Your task to perform on an android device: Open location settings Image 0: 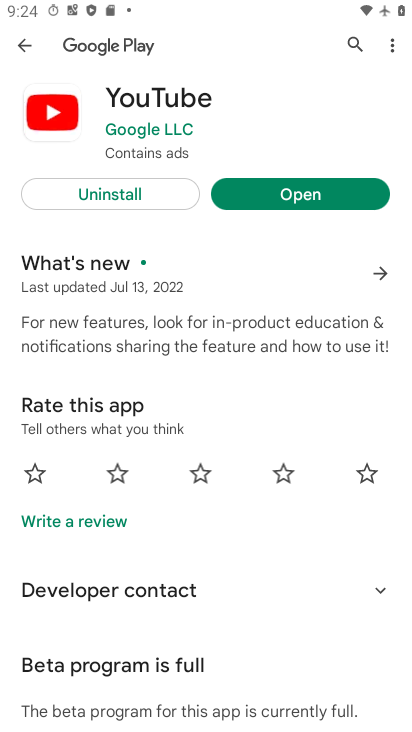
Step 0: press home button
Your task to perform on an android device: Open location settings Image 1: 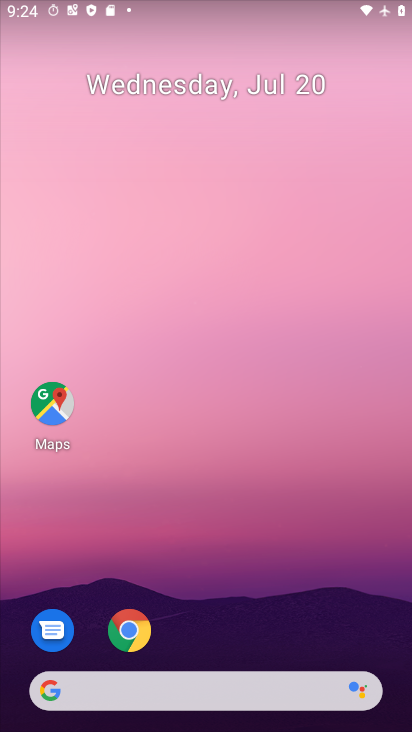
Step 1: drag from (244, 663) to (246, 215)
Your task to perform on an android device: Open location settings Image 2: 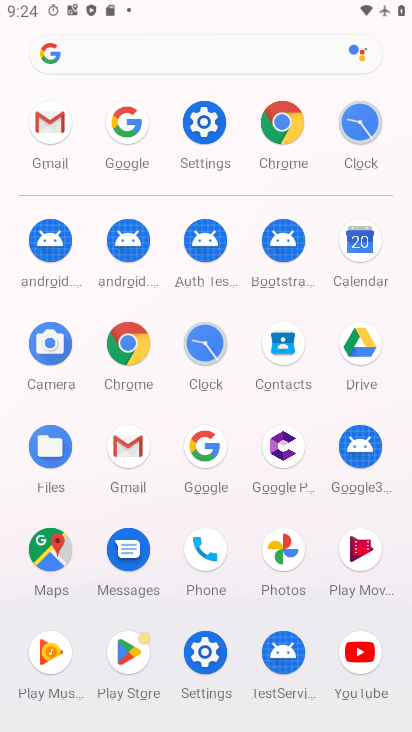
Step 2: click (203, 155)
Your task to perform on an android device: Open location settings Image 3: 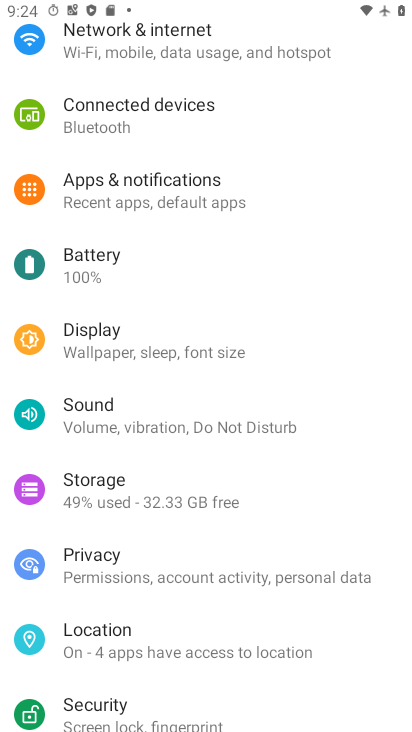
Step 3: click (156, 637)
Your task to perform on an android device: Open location settings Image 4: 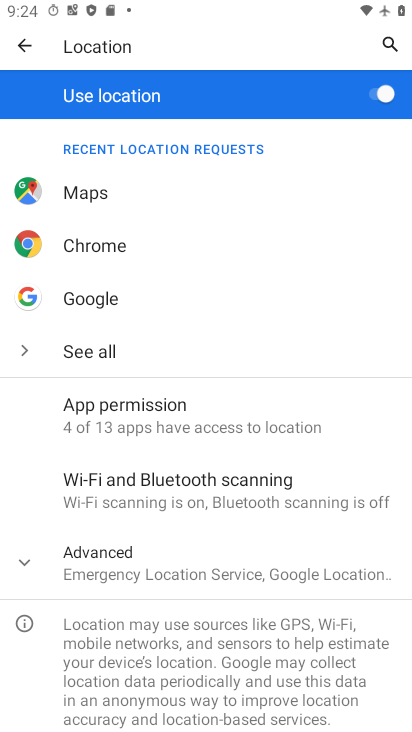
Step 4: task complete